Your task to perform on an android device: Open network settings Image 0: 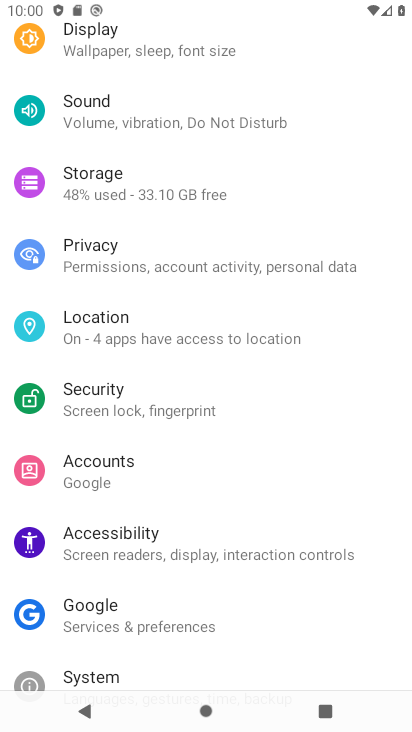
Step 0: drag from (180, 296) to (15, 295)
Your task to perform on an android device: Open network settings Image 1: 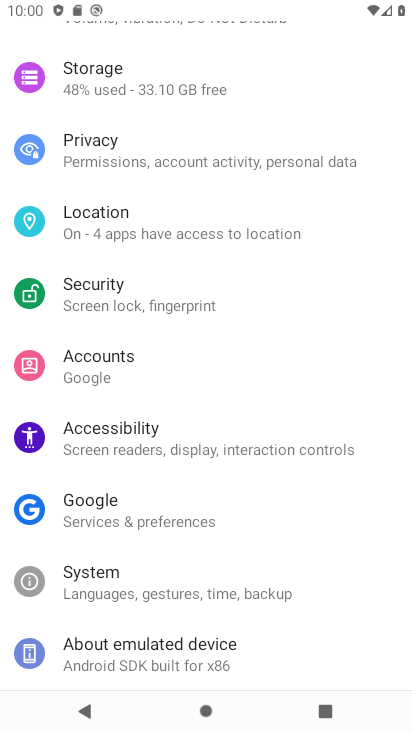
Step 1: drag from (167, 185) to (197, 700)
Your task to perform on an android device: Open network settings Image 2: 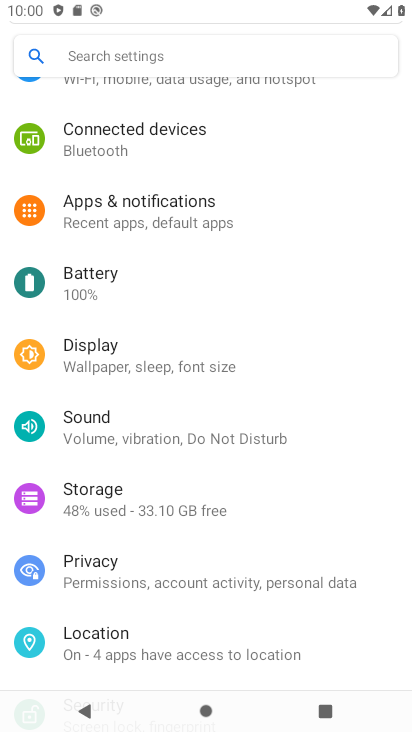
Step 2: drag from (135, 155) to (171, 679)
Your task to perform on an android device: Open network settings Image 3: 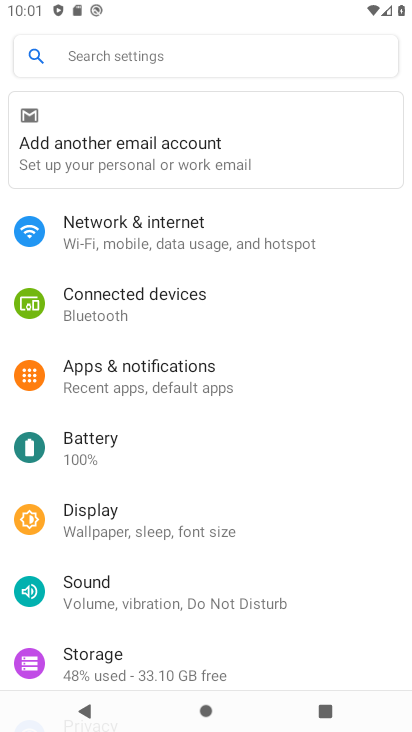
Step 3: click (130, 225)
Your task to perform on an android device: Open network settings Image 4: 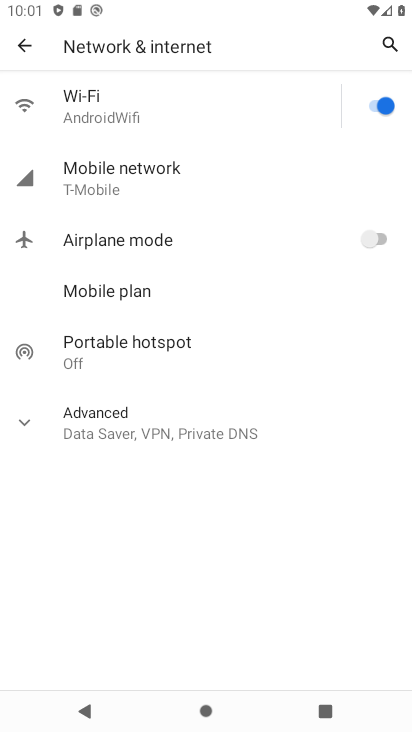
Step 4: task complete